Your task to perform on an android device: open device folders in google photos Image 0: 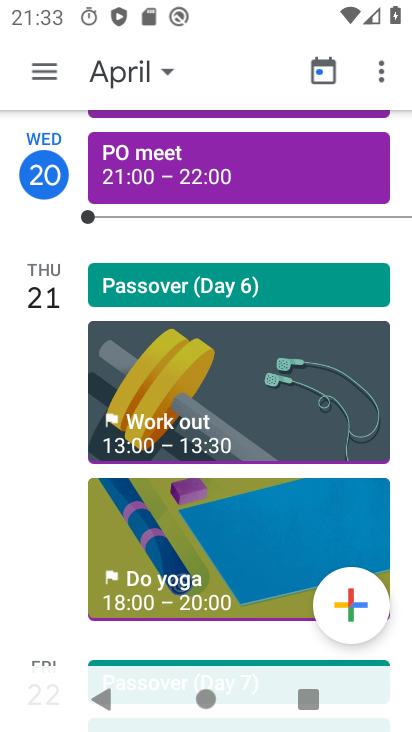
Step 0: press home button
Your task to perform on an android device: open device folders in google photos Image 1: 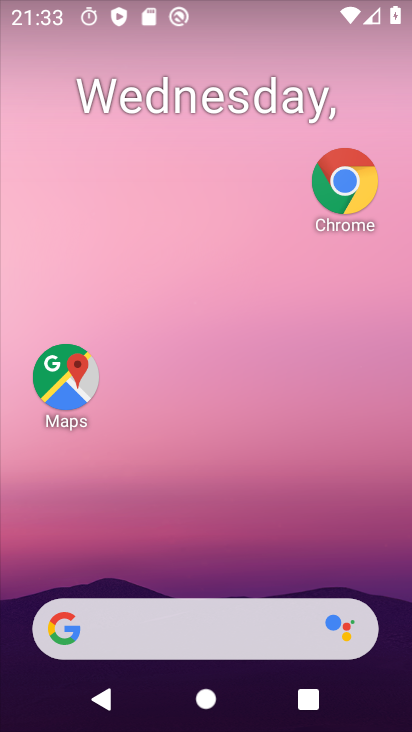
Step 1: drag from (241, 676) to (254, 183)
Your task to perform on an android device: open device folders in google photos Image 2: 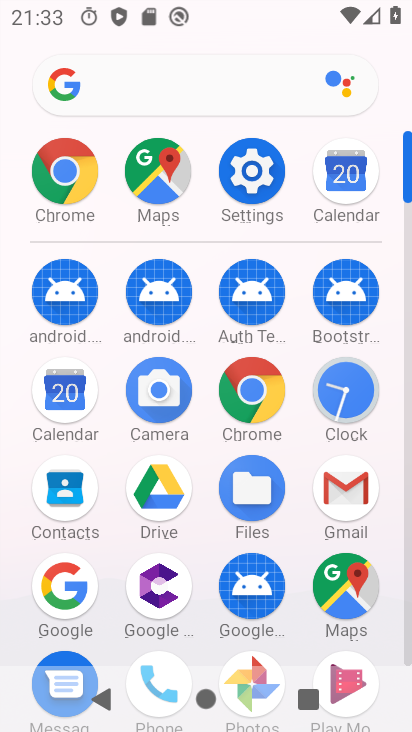
Step 2: drag from (197, 549) to (202, 340)
Your task to perform on an android device: open device folders in google photos Image 3: 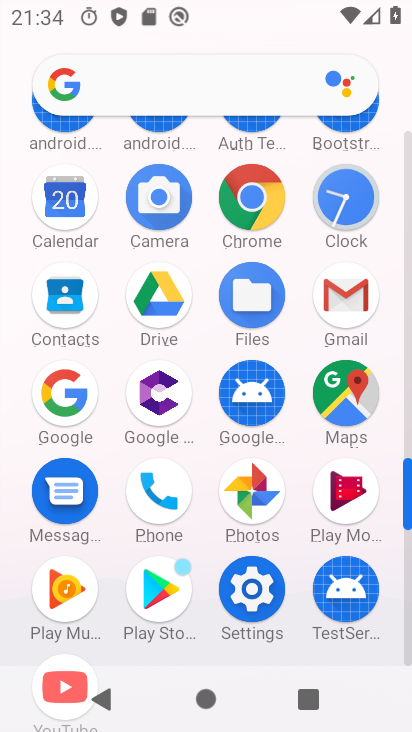
Step 3: click (241, 498)
Your task to perform on an android device: open device folders in google photos Image 4: 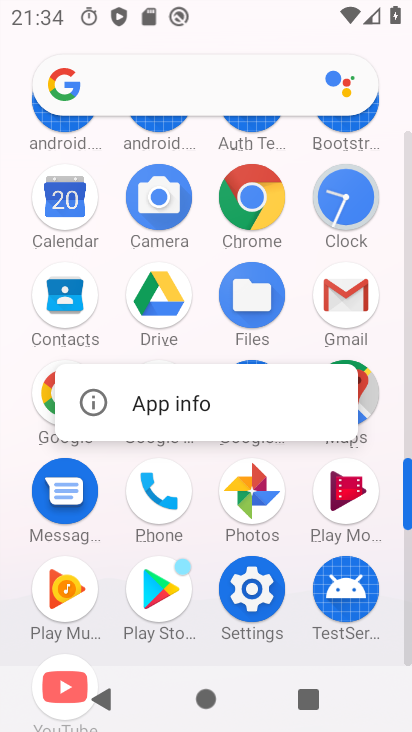
Step 4: click (256, 501)
Your task to perform on an android device: open device folders in google photos Image 5: 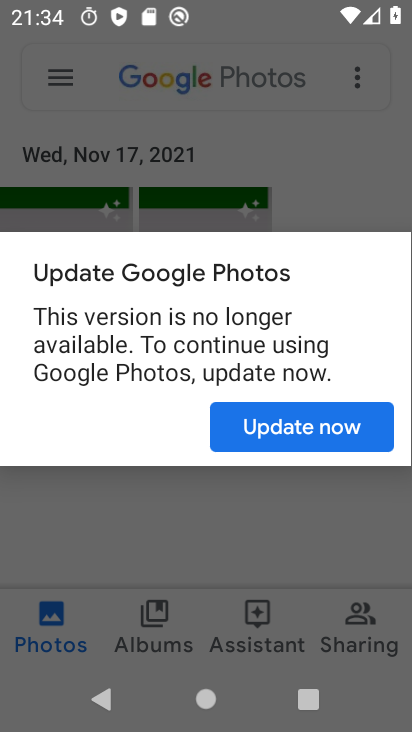
Step 5: click (283, 438)
Your task to perform on an android device: open device folders in google photos Image 6: 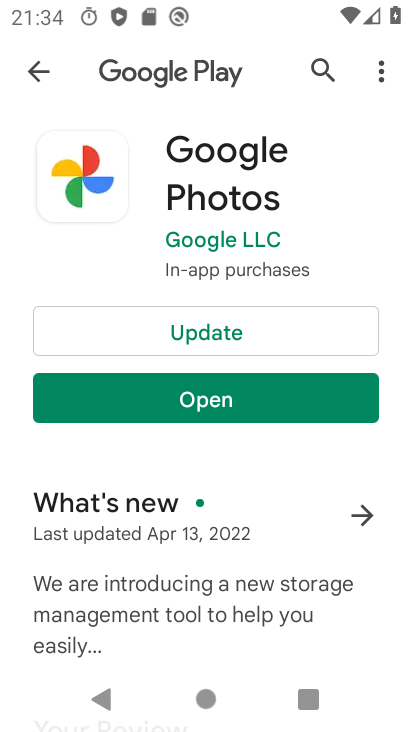
Step 6: click (202, 397)
Your task to perform on an android device: open device folders in google photos Image 7: 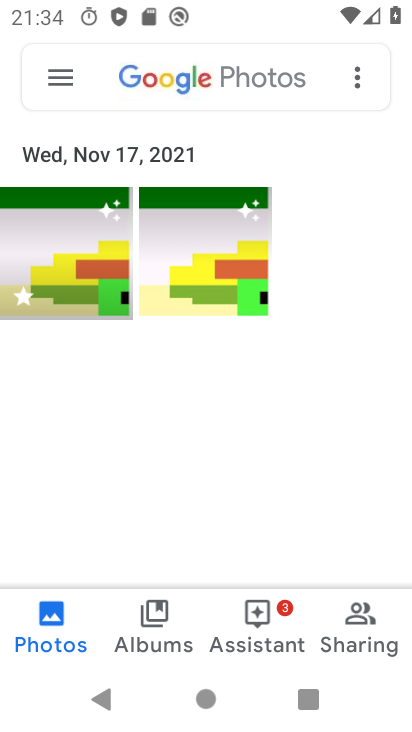
Step 7: click (61, 80)
Your task to perform on an android device: open device folders in google photos Image 8: 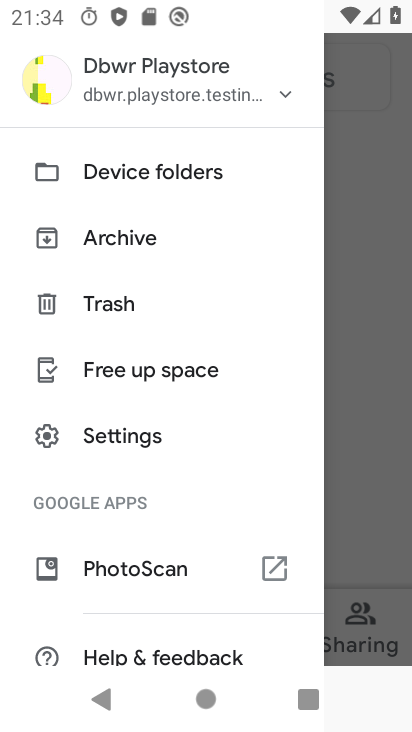
Step 8: click (122, 178)
Your task to perform on an android device: open device folders in google photos Image 9: 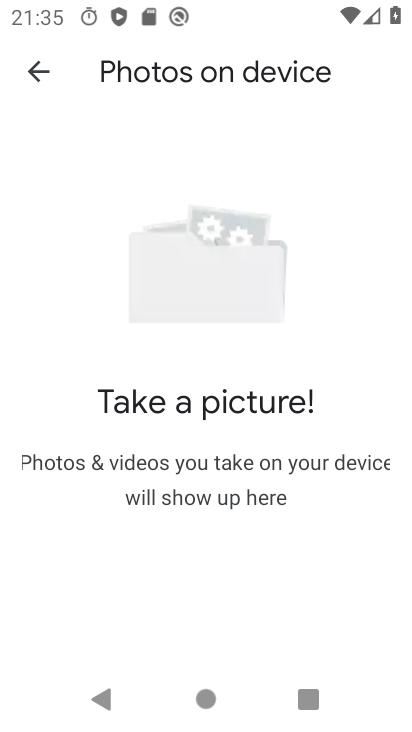
Step 9: task complete